Your task to perform on an android device: see creations saved in the google photos Image 0: 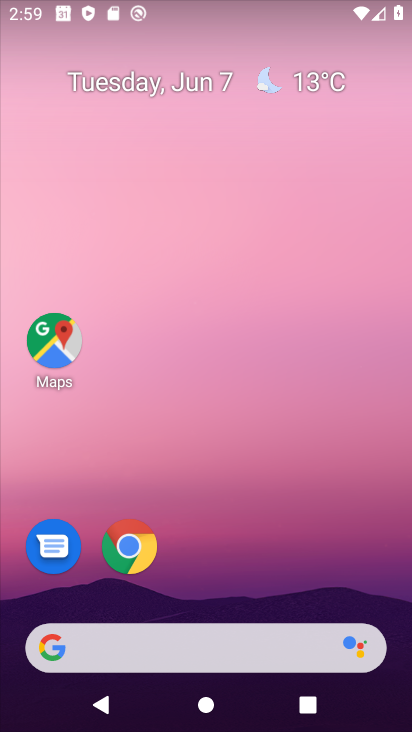
Step 0: drag from (190, 550) to (261, 241)
Your task to perform on an android device: see creations saved in the google photos Image 1: 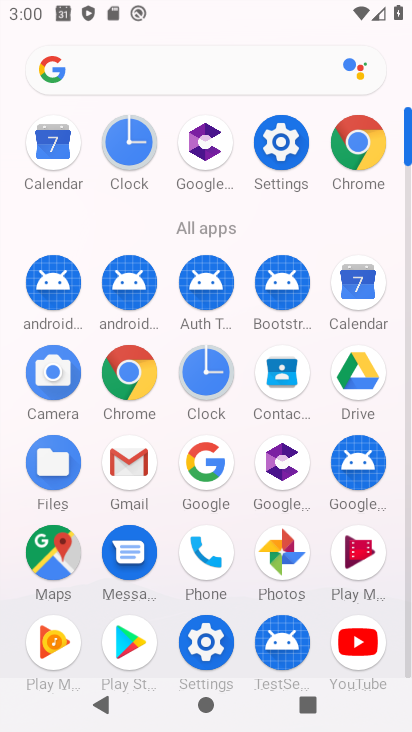
Step 1: click (283, 558)
Your task to perform on an android device: see creations saved in the google photos Image 2: 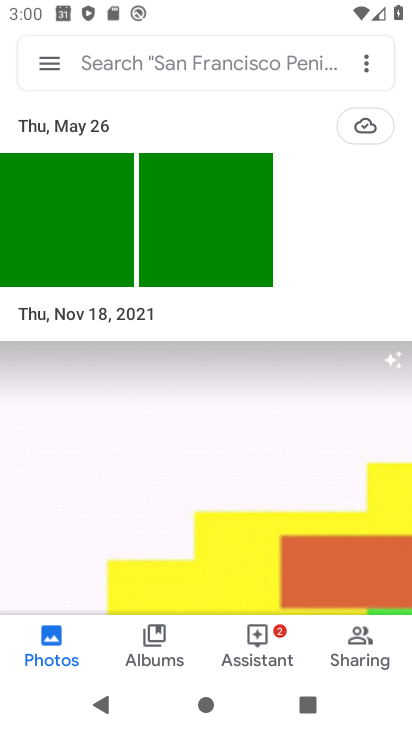
Step 2: click (142, 62)
Your task to perform on an android device: see creations saved in the google photos Image 3: 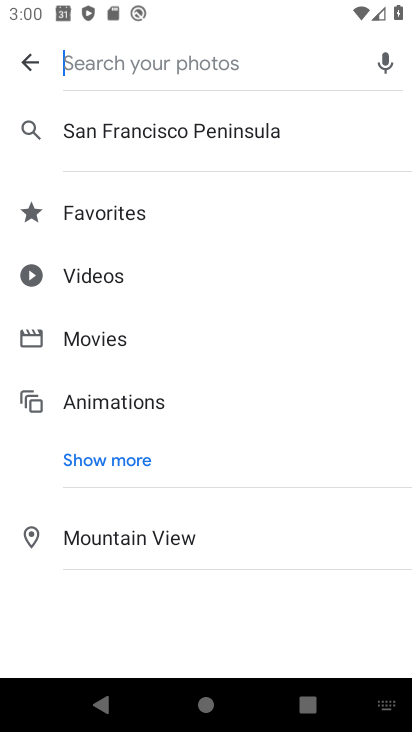
Step 3: type "cre"
Your task to perform on an android device: see creations saved in the google photos Image 4: 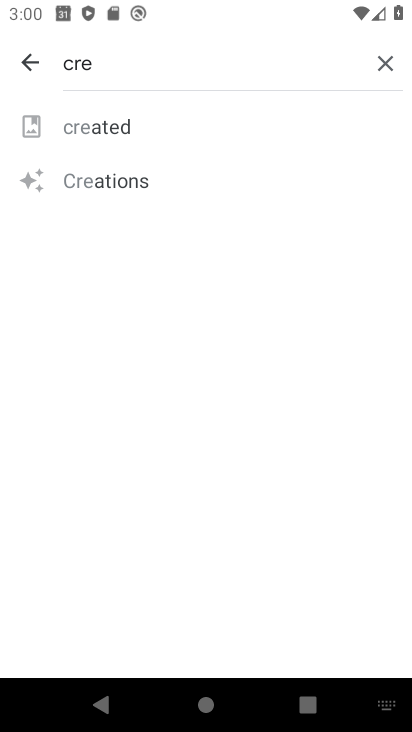
Step 4: click (185, 193)
Your task to perform on an android device: see creations saved in the google photos Image 5: 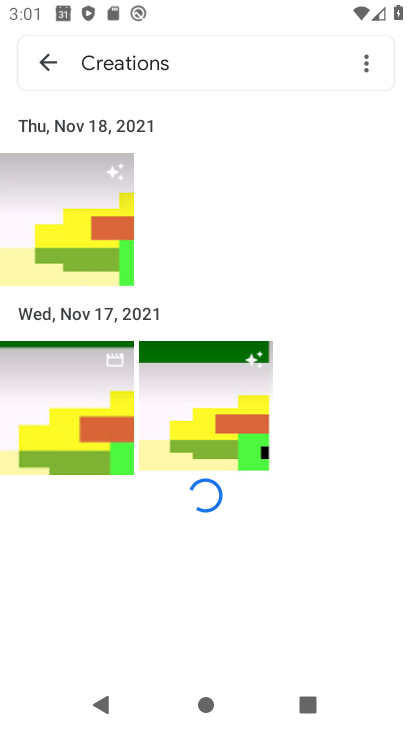
Step 5: task complete